Your task to perform on an android device: install app "Instagram" Image 0: 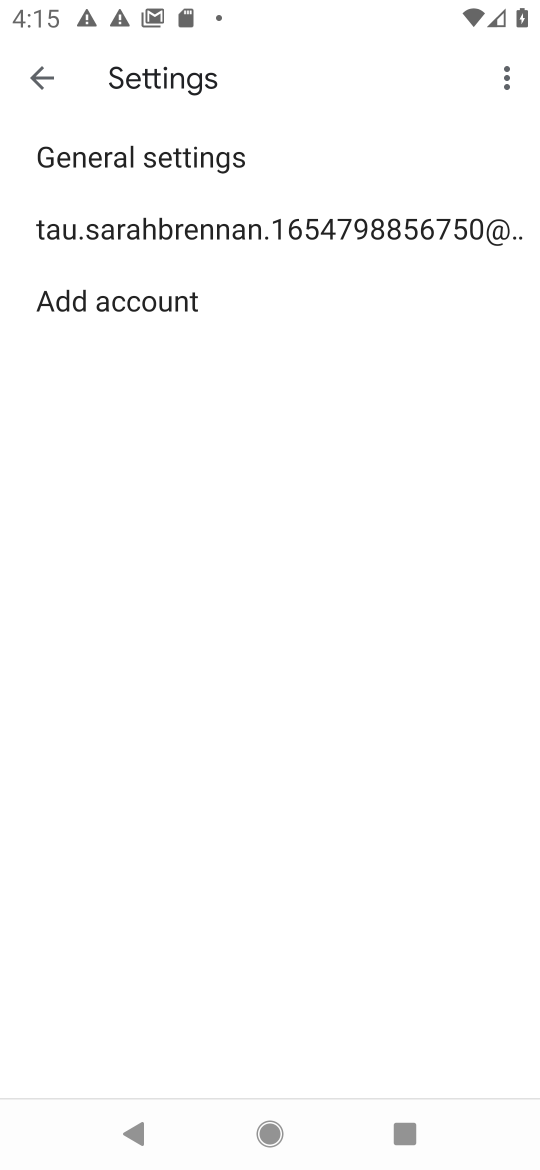
Step 0: press home button
Your task to perform on an android device: install app "Instagram" Image 1: 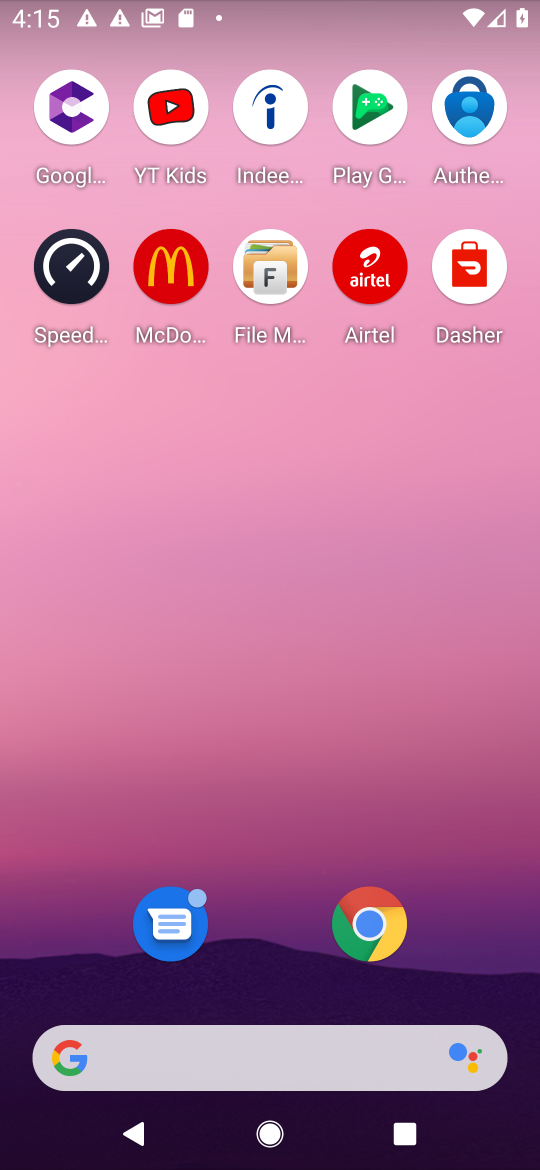
Step 1: drag from (310, 1126) to (299, 166)
Your task to perform on an android device: install app "Instagram" Image 2: 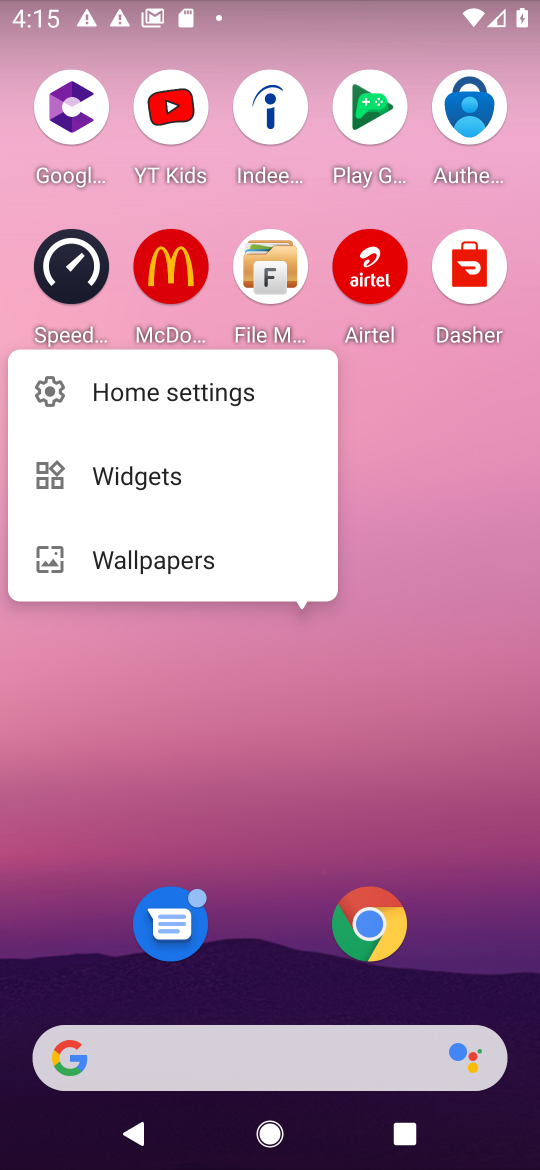
Step 2: click (290, 761)
Your task to perform on an android device: install app "Instagram" Image 3: 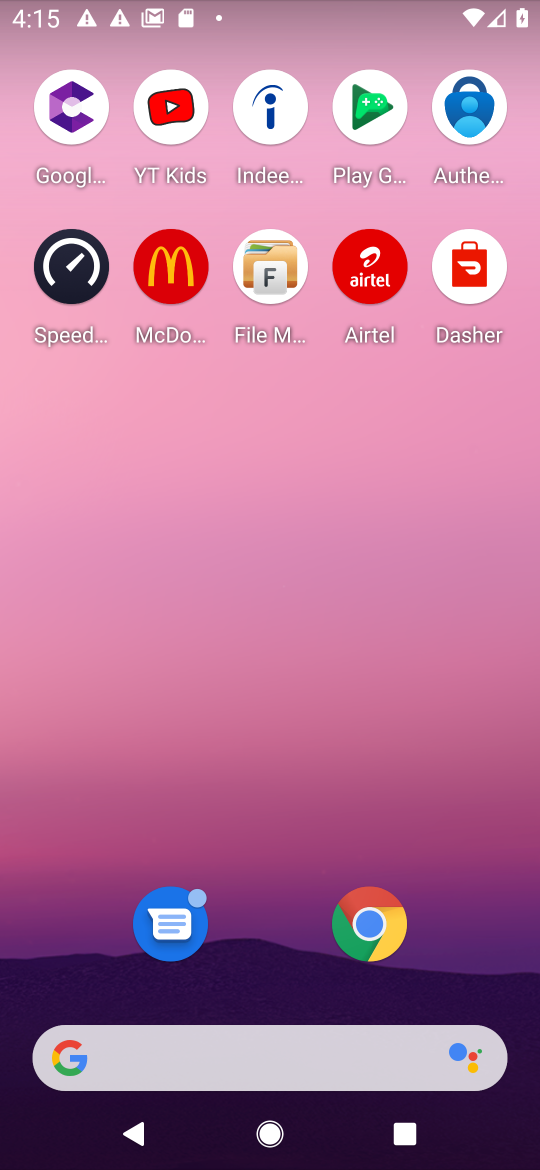
Step 3: drag from (319, 1154) to (308, 138)
Your task to perform on an android device: install app "Instagram" Image 4: 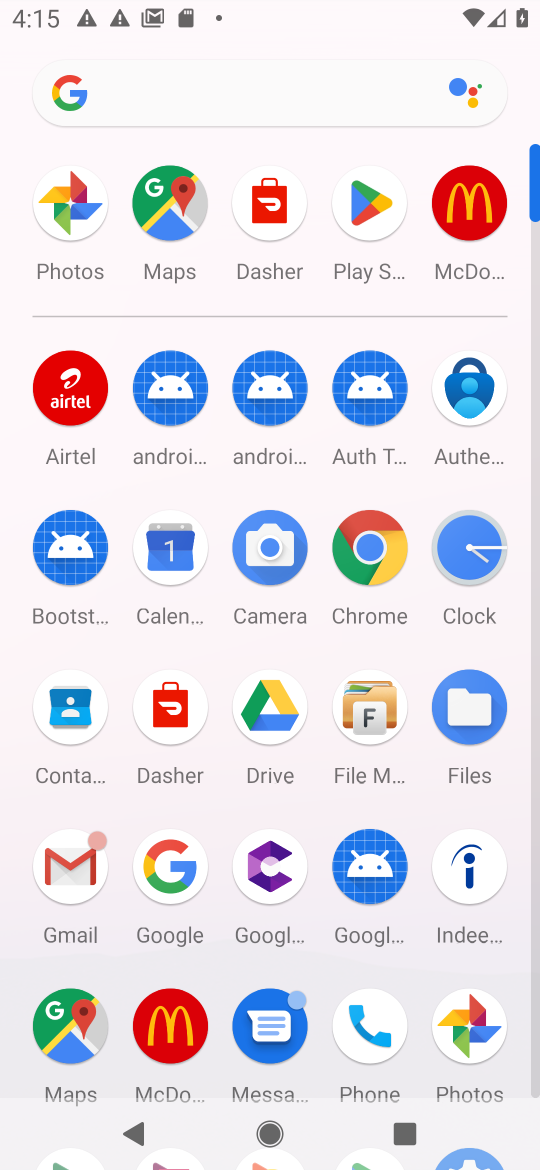
Step 4: click (356, 202)
Your task to perform on an android device: install app "Instagram" Image 5: 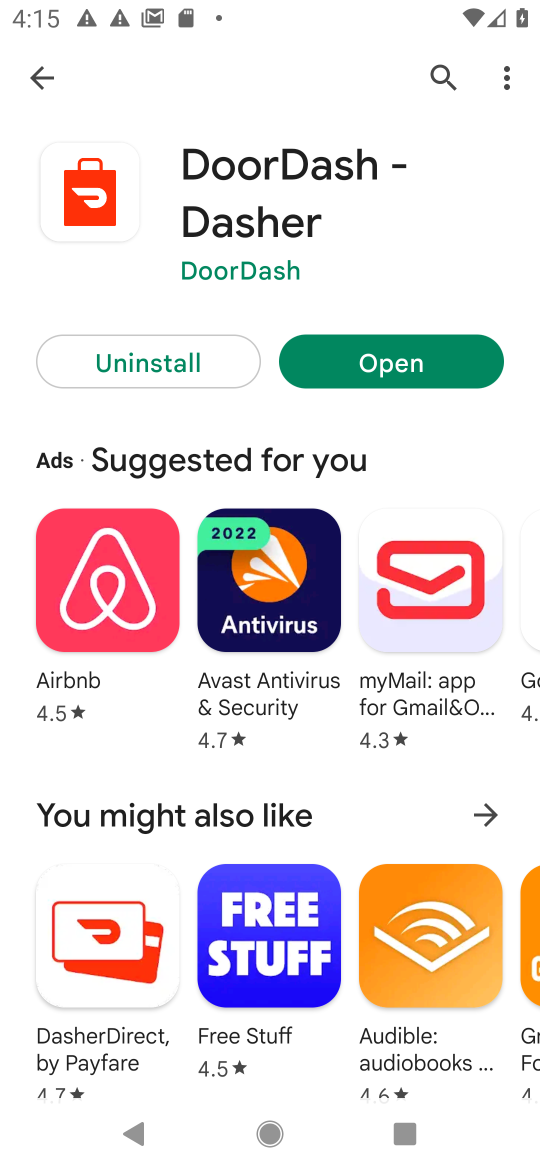
Step 5: click (444, 72)
Your task to perform on an android device: install app "Instagram" Image 6: 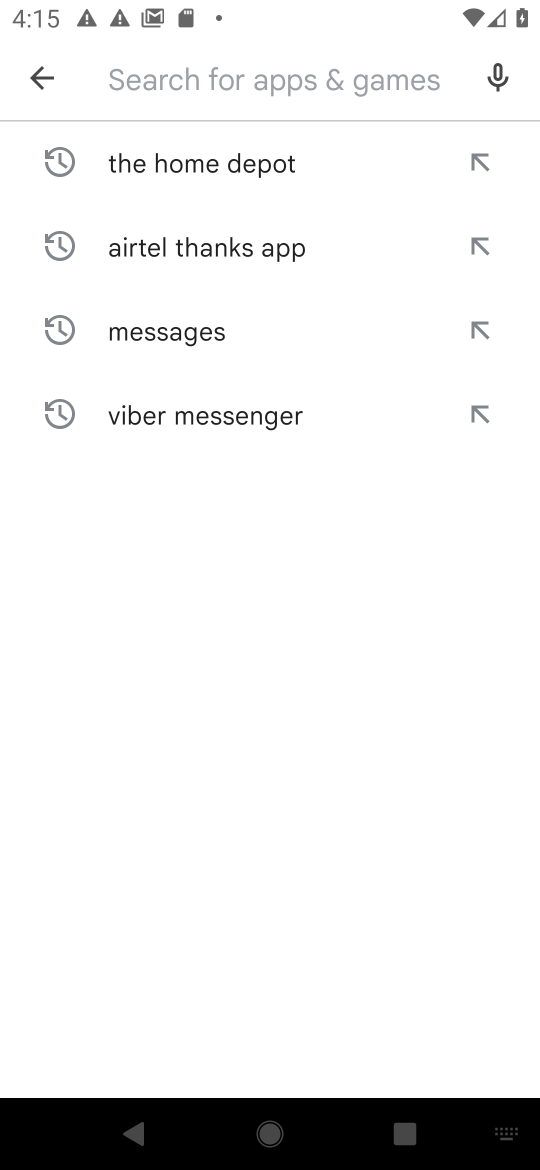
Step 6: type "Instagram"
Your task to perform on an android device: install app "Instagram" Image 7: 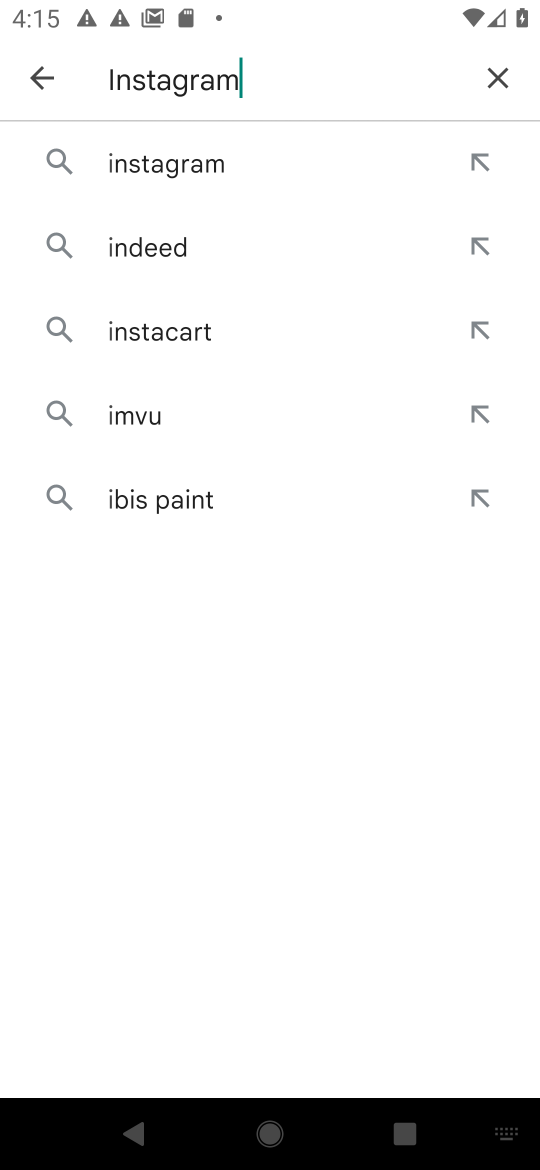
Step 7: type ""
Your task to perform on an android device: install app "Instagram" Image 8: 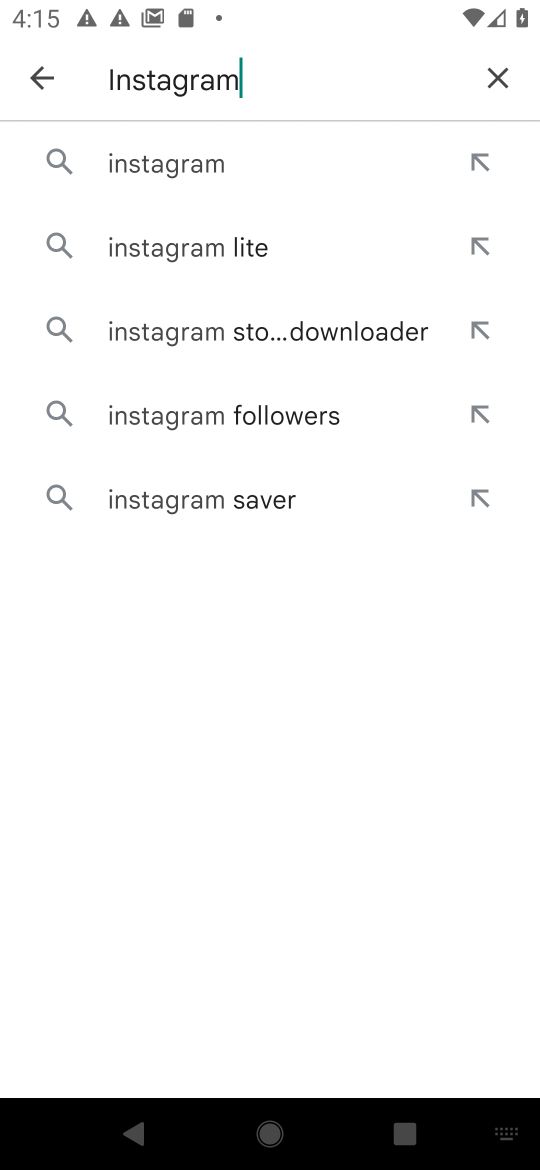
Step 8: click (183, 160)
Your task to perform on an android device: install app "Instagram" Image 9: 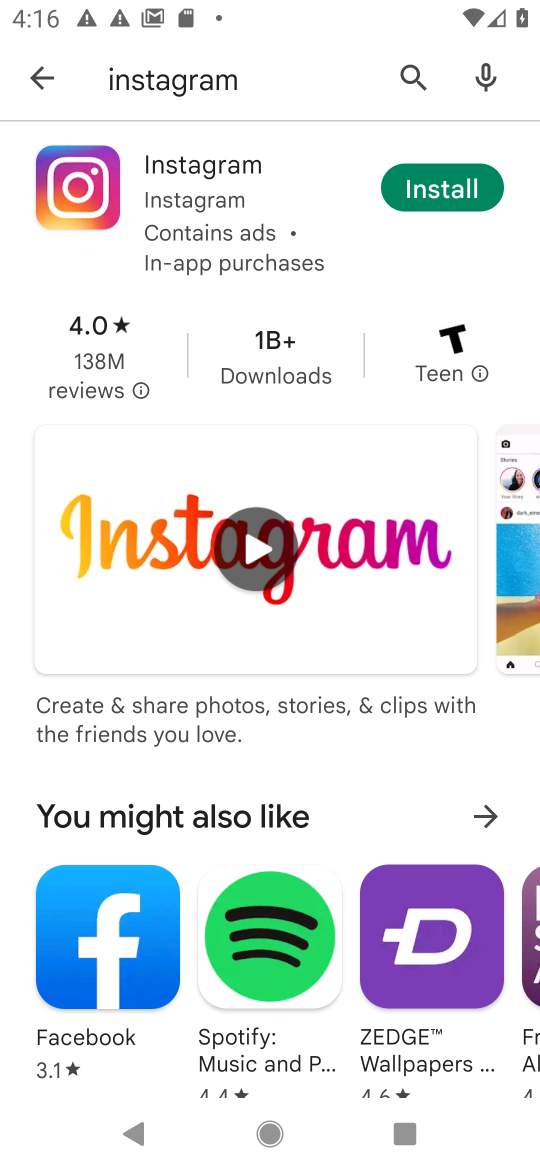
Step 9: click (446, 189)
Your task to perform on an android device: install app "Instagram" Image 10: 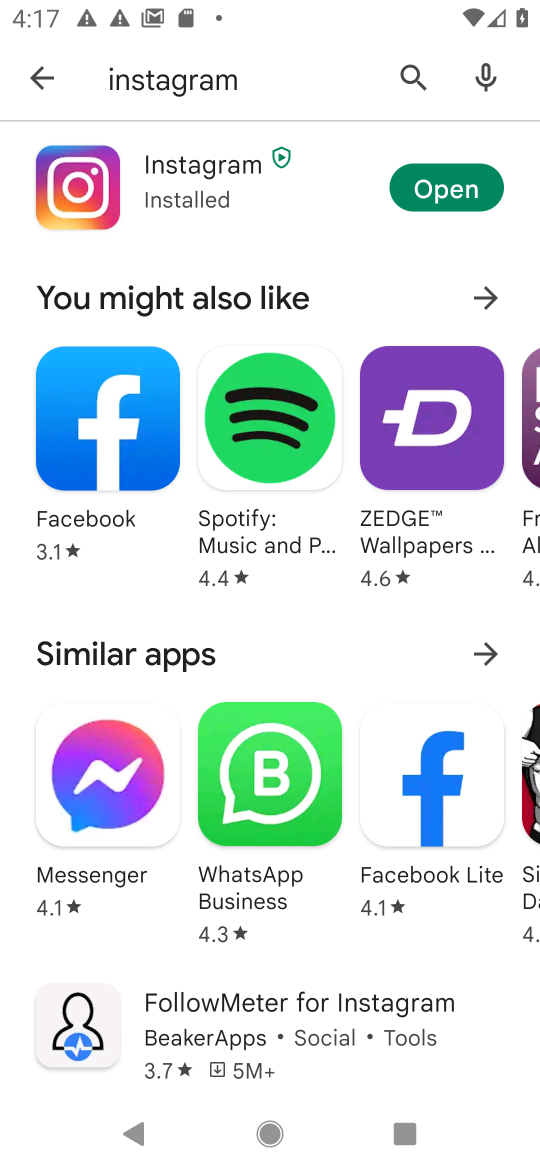
Step 10: task complete